Your task to perform on an android device: add a contact in the contacts app Image 0: 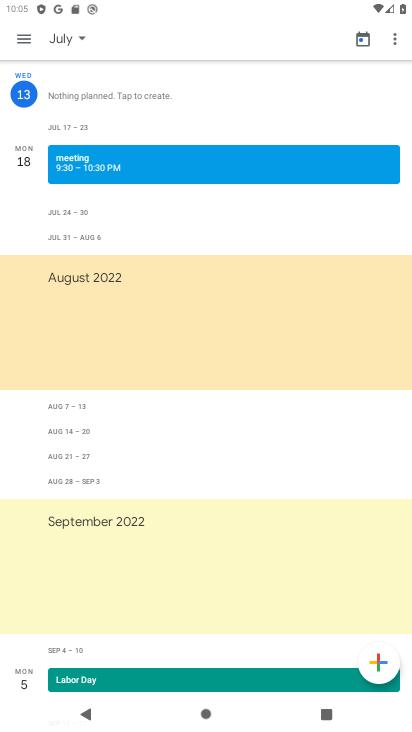
Step 0: press home button
Your task to perform on an android device: add a contact in the contacts app Image 1: 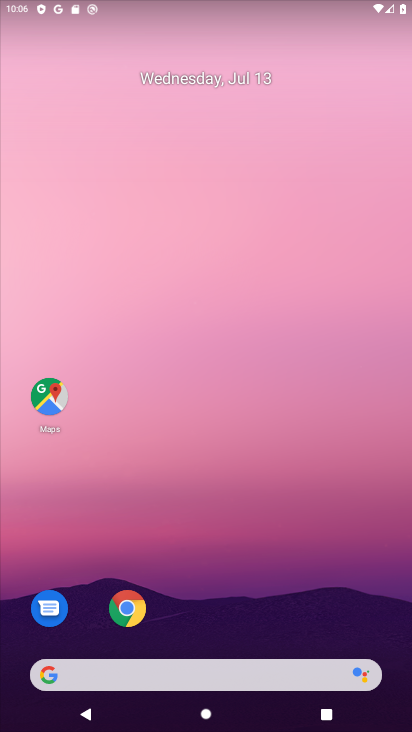
Step 1: drag from (269, 609) to (285, 367)
Your task to perform on an android device: add a contact in the contacts app Image 2: 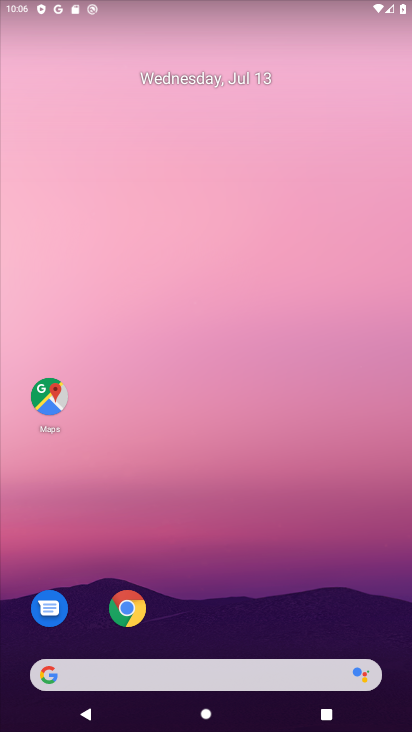
Step 2: drag from (236, 608) to (244, 213)
Your task to perform on an android device: add a contact in the contacts app Image 3: 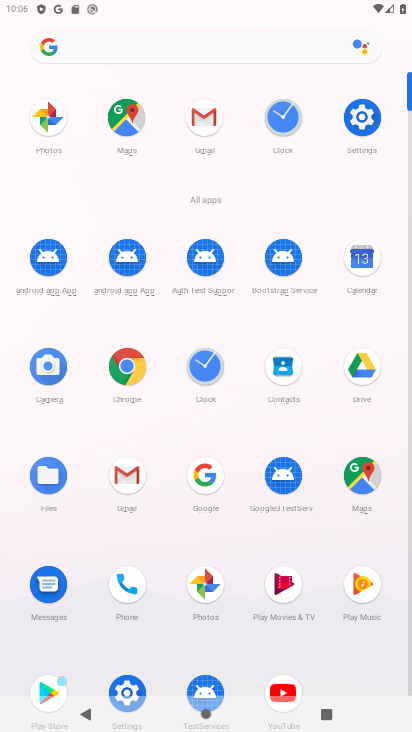
Step 3: click (284, 360)
Your task to perform on an android device: add a contact in the contacts app Image 4: 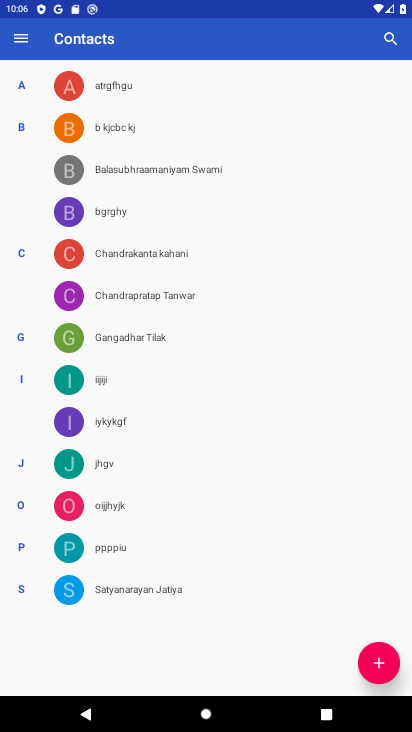
Step 4: click (362, 669)
Your task to perform on an android device: add a contact in the contacts app Image 5: 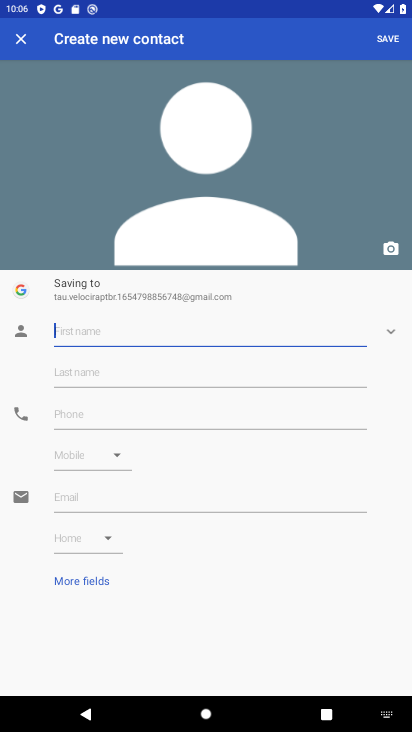
Step 5: type "jk"
Your task to perform on an android device: add a contact in the contacts app Image 6: 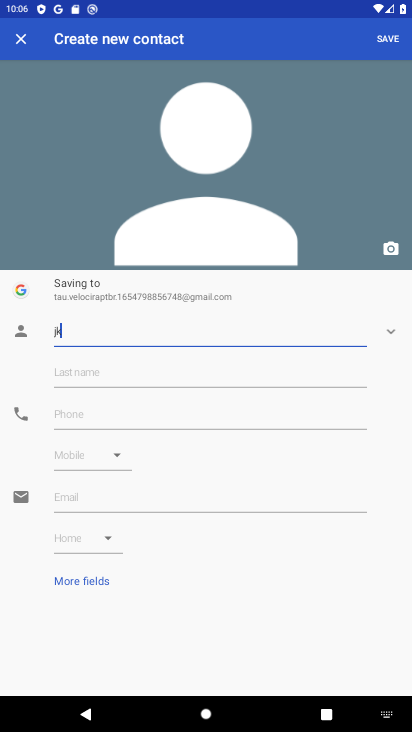
Step 6: click (96, 415)
Your task to perform on an android device: add a contact in the contacts app Image 7: 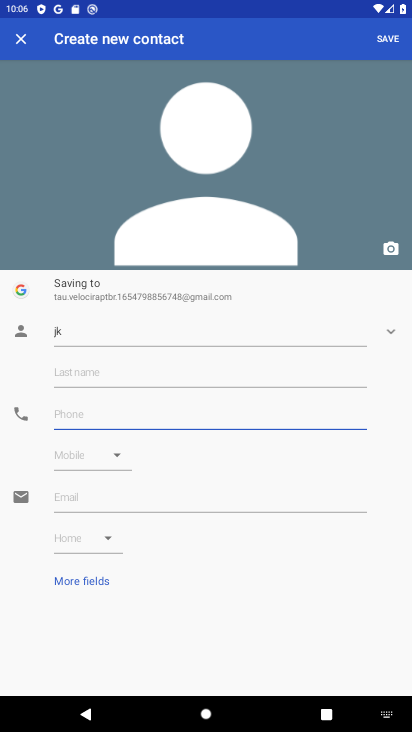
Step 7: type "09876654321"
Your task to perform on an android device: add a contact in the contacts app Image 8: 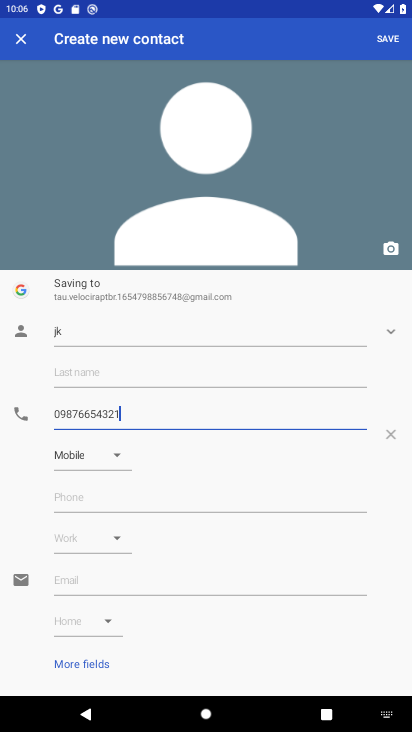
Step 8: click (391, 40)
Your task to perform on an android device: add a contact in the contacts app Image 9: 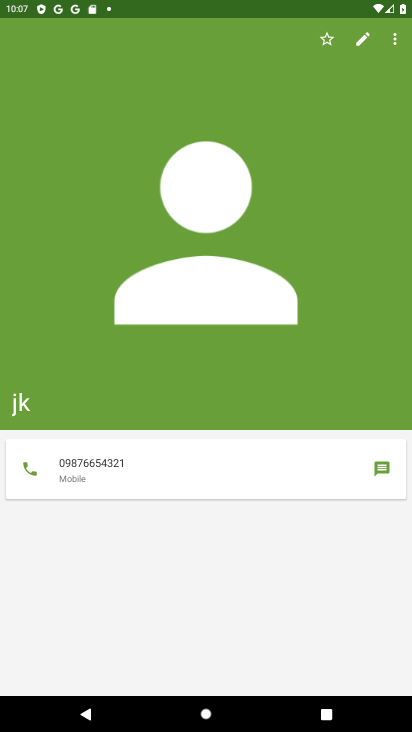
Step 9: task complete